Your task to perform on an android device: set the stopwatch Image 0: 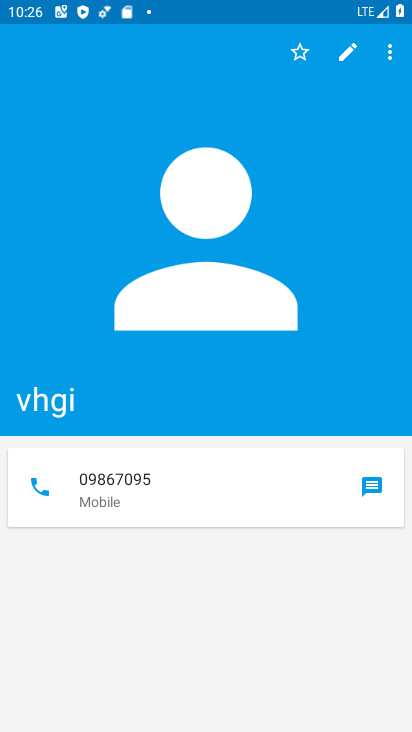
Step 0: press home button
Your task to perform on an android device: set the stopwatch Image 1: 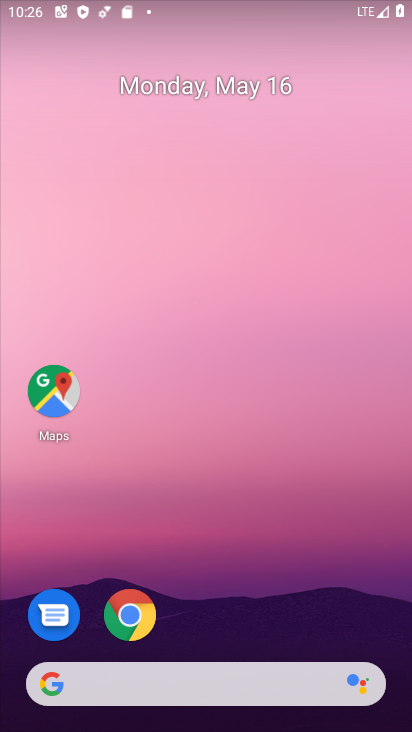
Step 1: drag from (264, 672) to (408, 0)
Your task to perform on an android device: set the stopwatch Image 2: 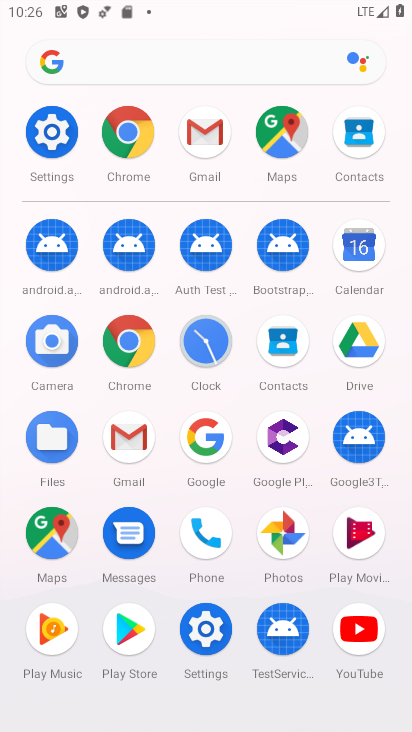
Step 2: click (222, 338)
Your task to perform on an android device: set the stopwatch Image 3: 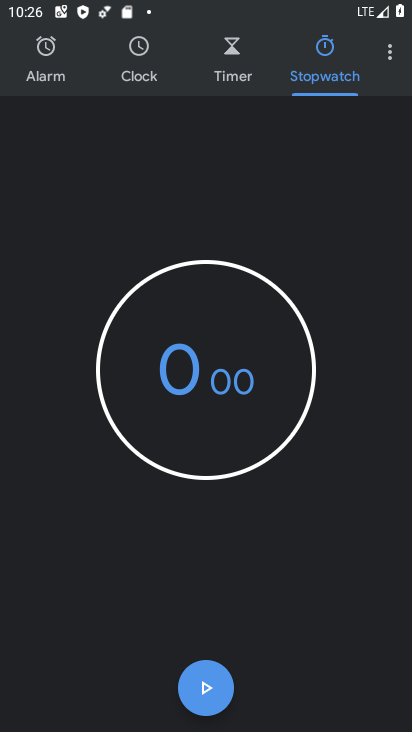
Step 3: task complete